Your task to perform on an android device: change notification settings in the gmail app Image 0: 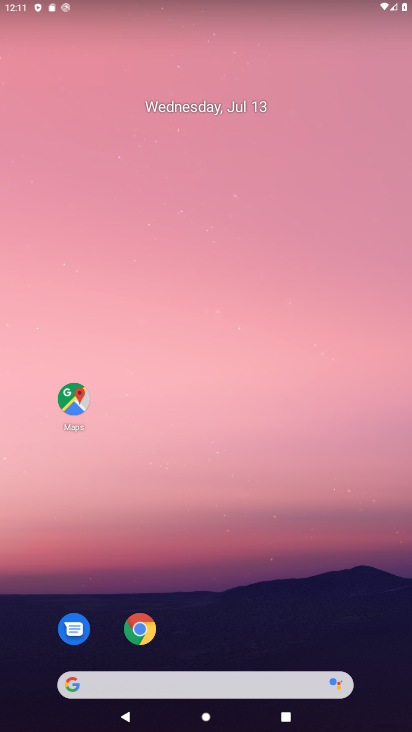
Step 0: drag from (204, 599) to (195, 162)
Your task to perform on an android device: change notification settings in the gmail app Image 1: 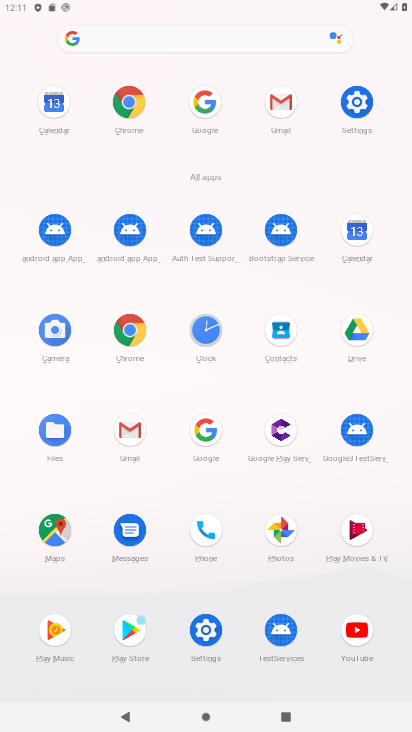
Step 1: click (290, 116)
Your task to perform on an android device: change notification settings in the gmail app Image 2: 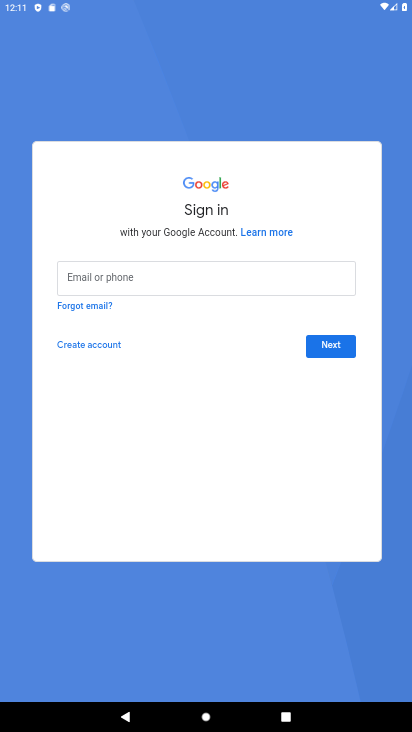
Step 2: task complete